Your task to perform on an android device: turn off picture-in-picture Image 0: 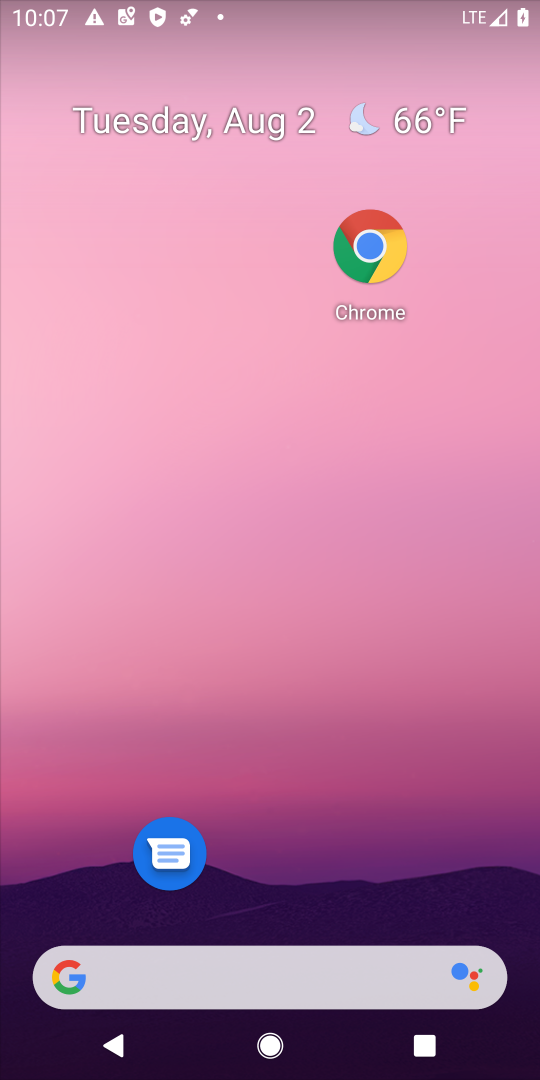
Step 0: drag from (260, 927) to (273, 12)
Your task to perform on an android device: turn off picture-in-picture Image 1: 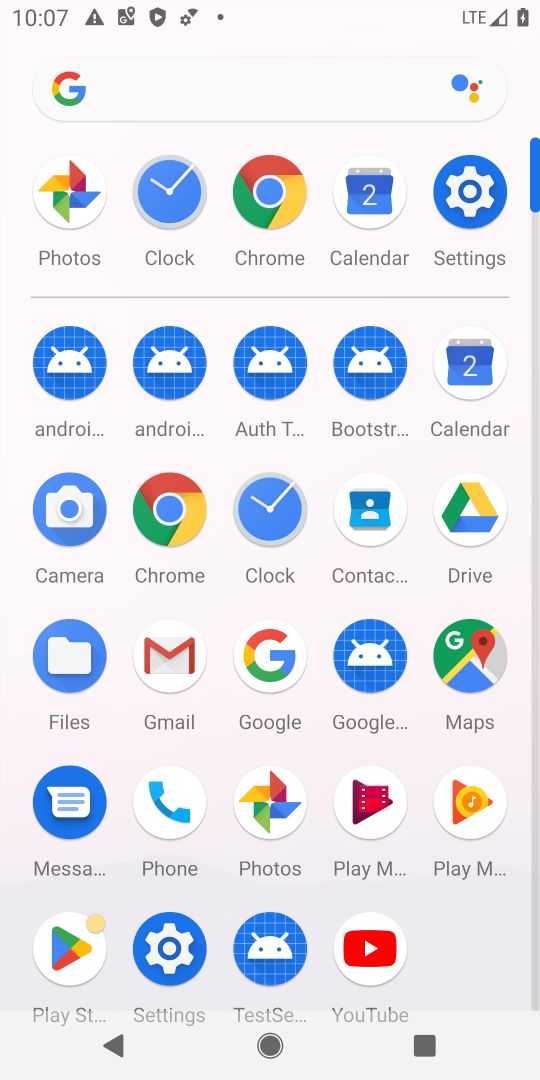
Step 1: click (179, 959)
Your task to perform on an android device: turn off picture-in-picture Image 2: 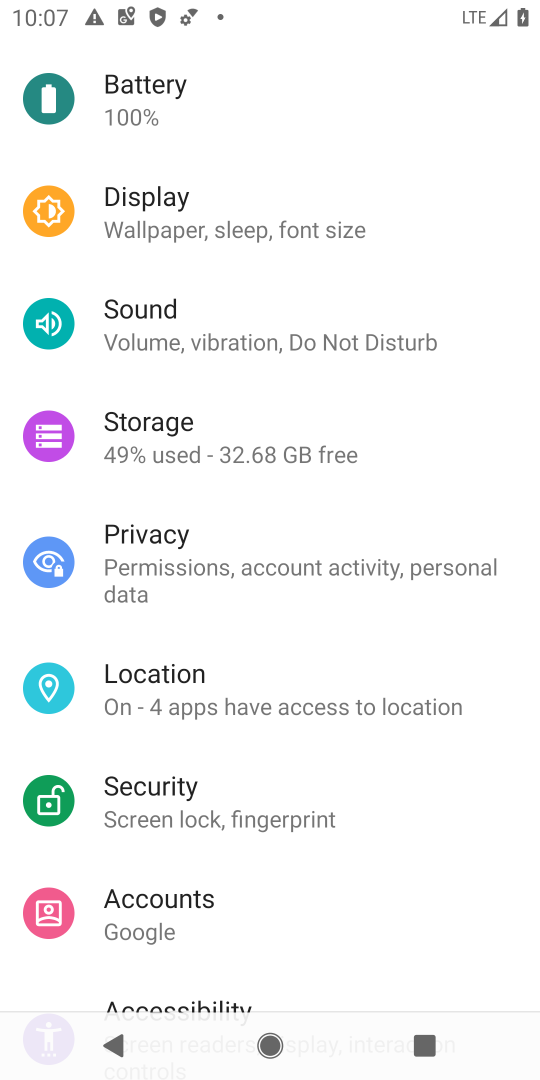
Step 2: drag from (242, 807) to (237, 83)
Your task to perform on an android device: turn off picture-in-picture Image 3: 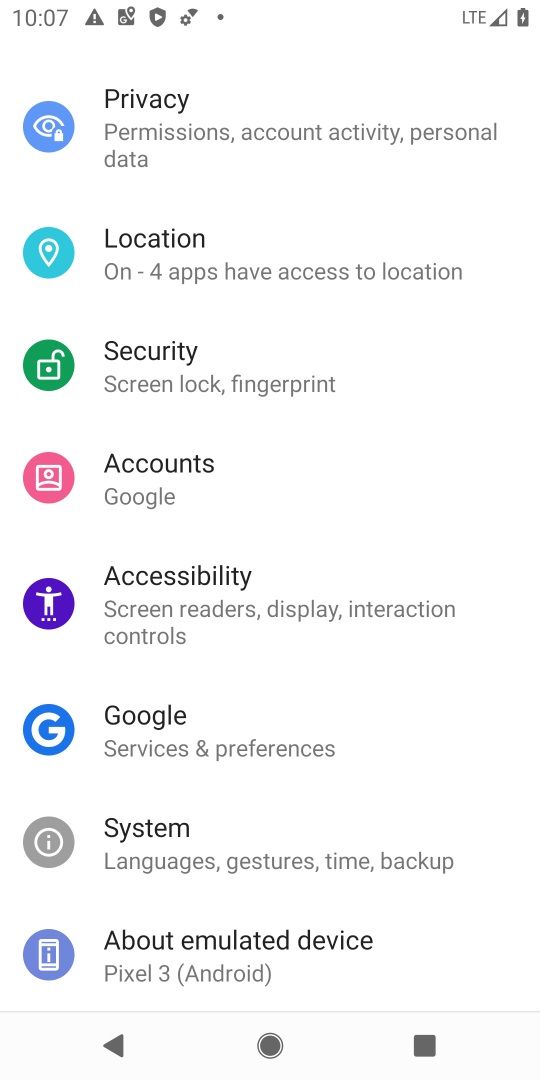
Step 3: drag from (212, 879) to (301, 1071)
Your task to perform on an android device: turn off picture-in-picture Image 4: 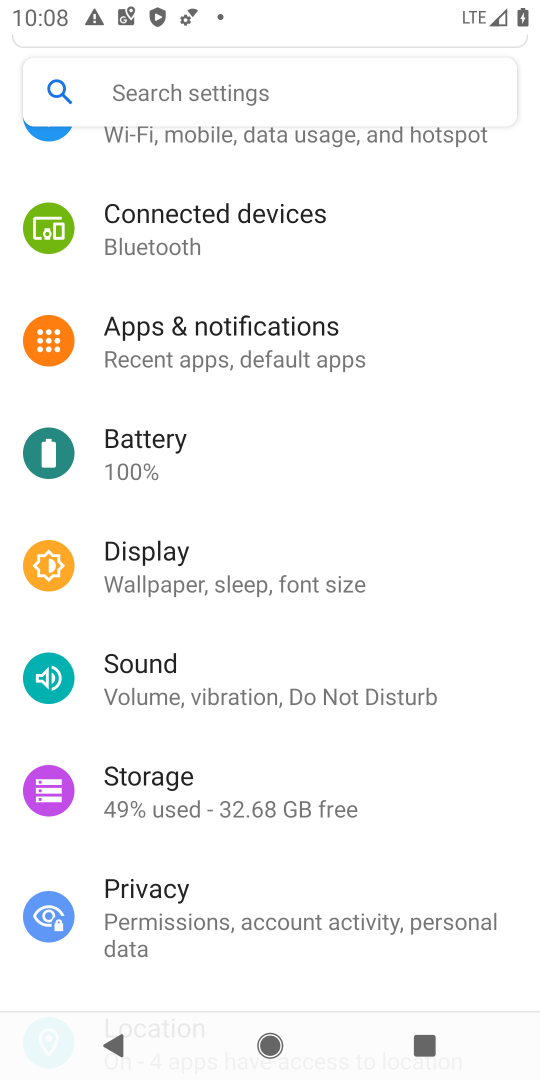
Step 4: click (205, 375)
Your task to perform on an android device: turn off picture-in-picture Image 5: 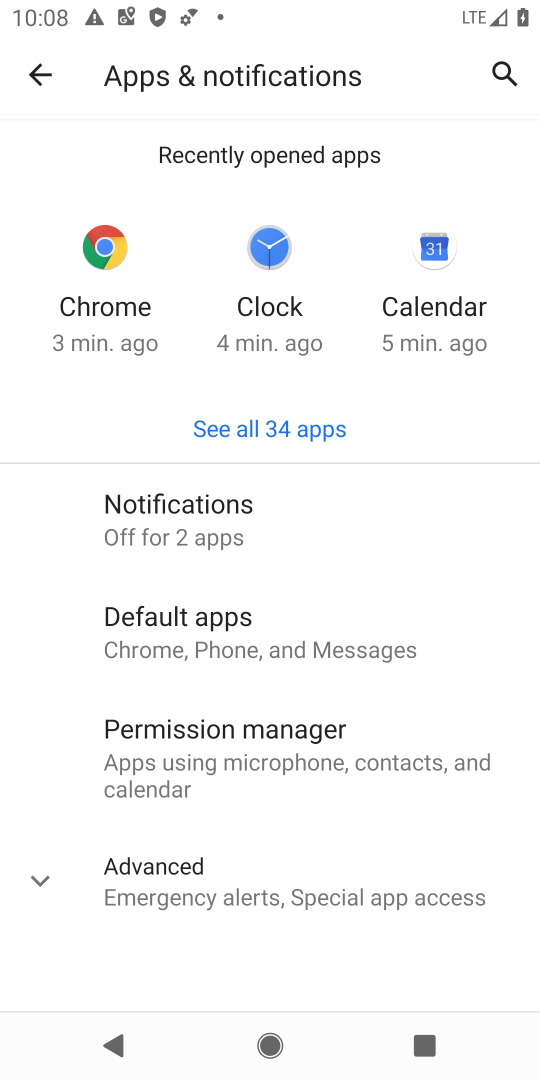
Step 5: click (177, 890)
Your task to perform on an android device: turn off picture-in-picture Image 6: 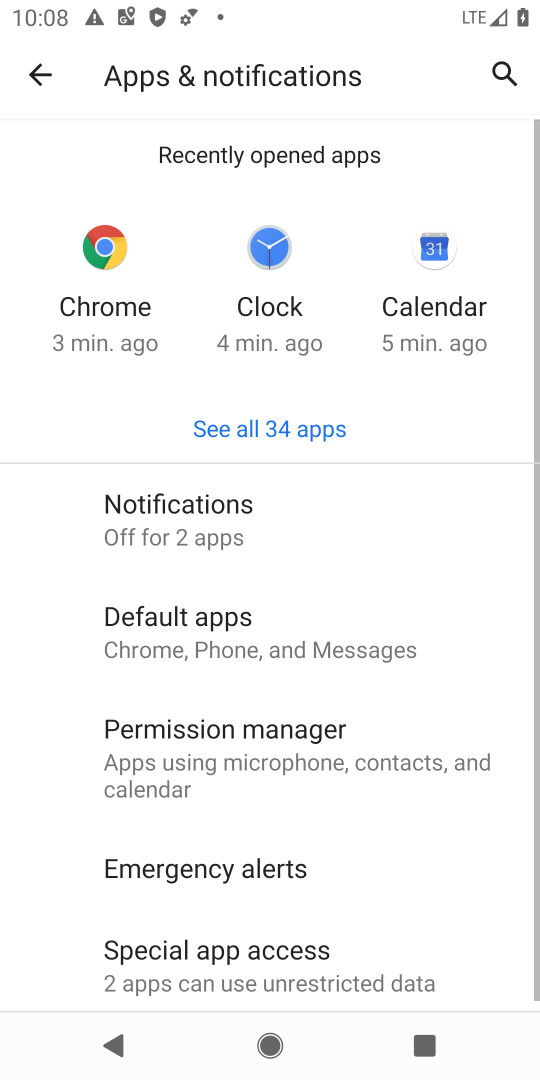
Step 6: drag from (178, 891) to (184, 338)
Your task to perform on an android device: turn off picture-in-picture Image 7: 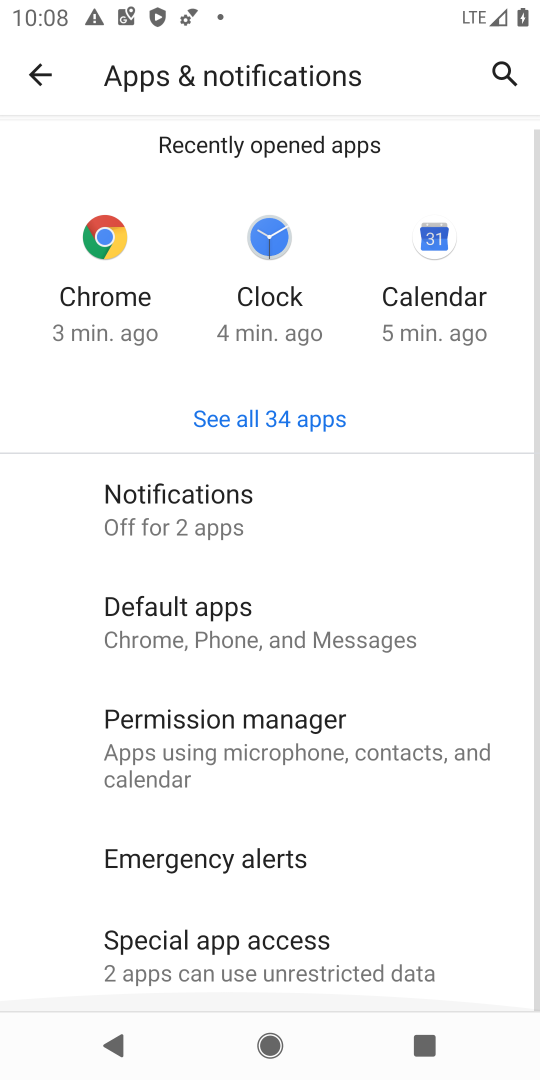
Step 7: click (212, 973)
Your task to perform on an android device: turn off picture-in-picture Image 8: 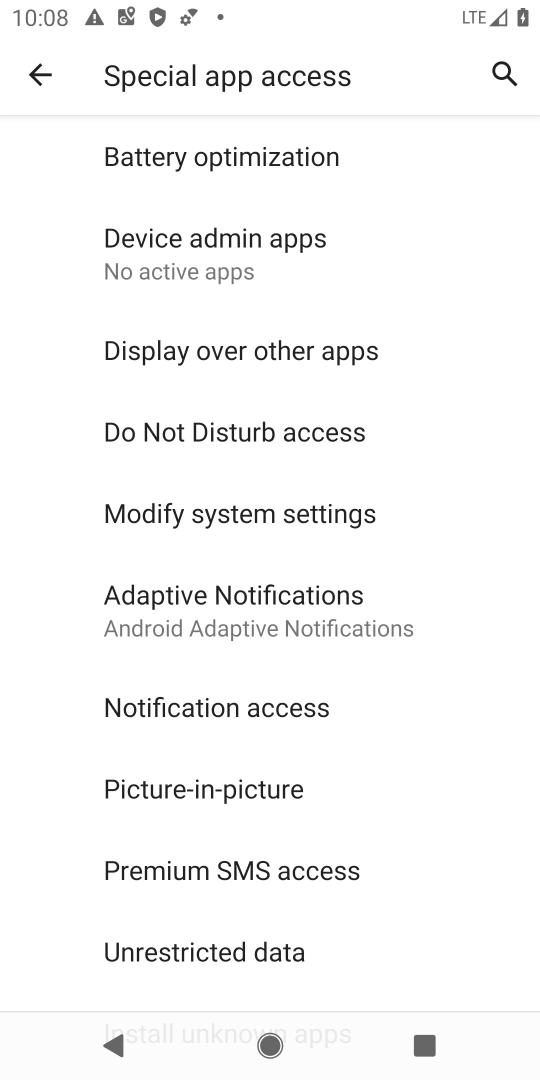
Step 8: click (238, 806)
Your task to perform on an android device: turn off picture-in-picture Image 9: 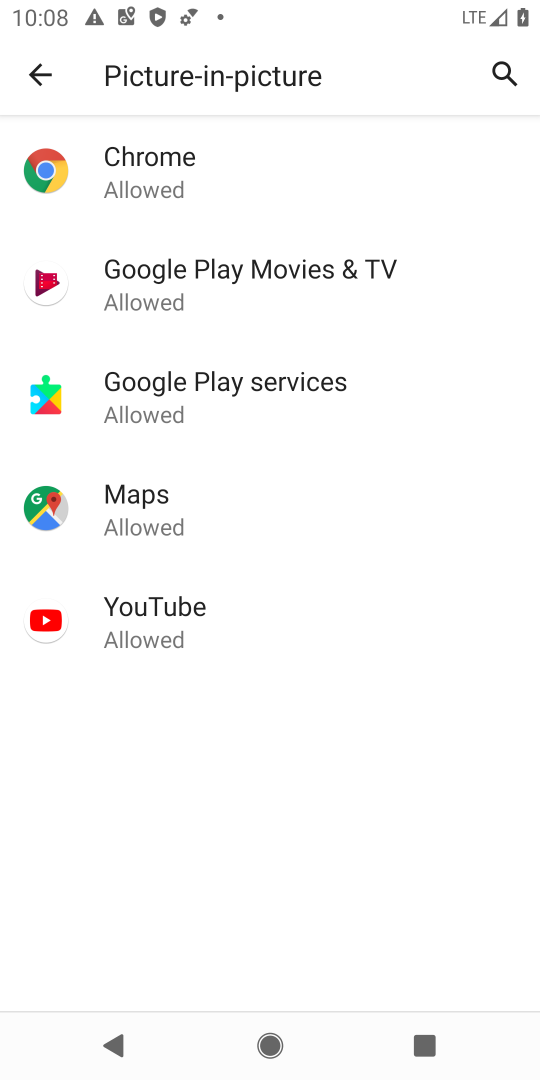
Step 9: task complete